Your task to perform on an android device: turn notification dots off Image 0: 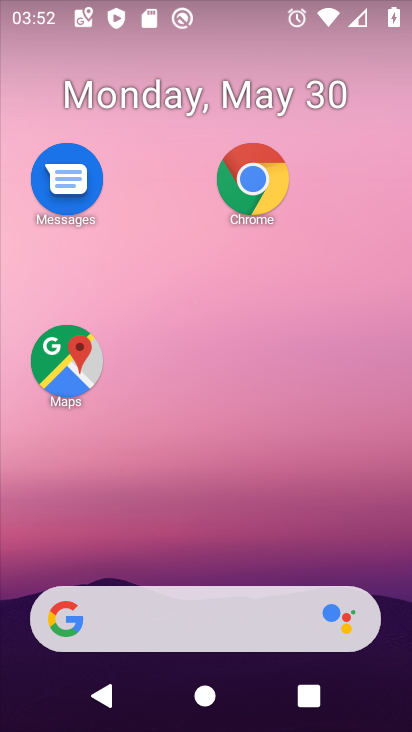
Step 0: drag from (218, 494) to (235, 143)
Your task to perform on an android device: turn notification dots off Image 1: 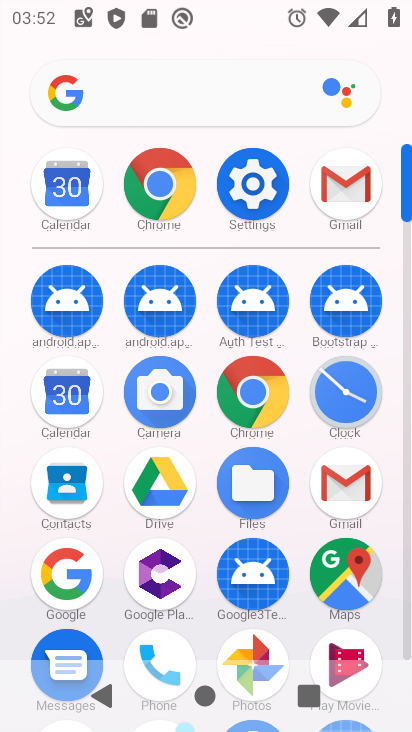
Step 1: click (248, 188)
Your task to perform on an android device: turn notification dots off Image 2: 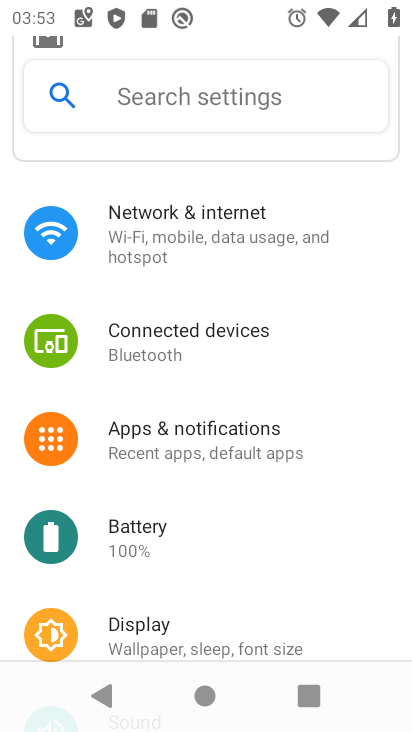
Step 2: drag from (176, 566) to (200, 268)
Your task to perform on an android device: turn notification dots off Image 3: 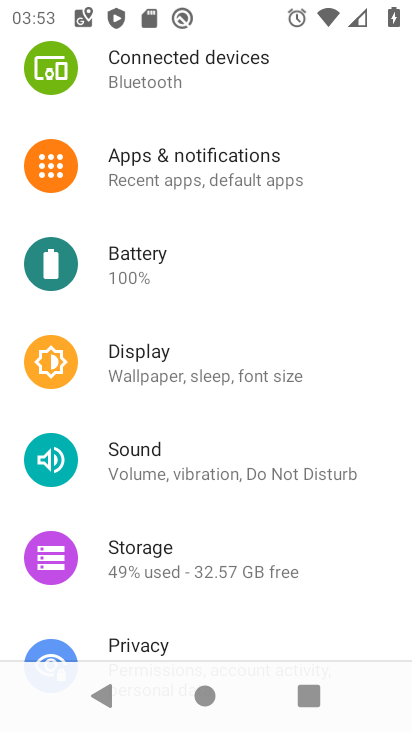
Step 3: drag from (166, 590) to (172, 185)
Your task to perform on an android device: turn notification dots off Image 4: 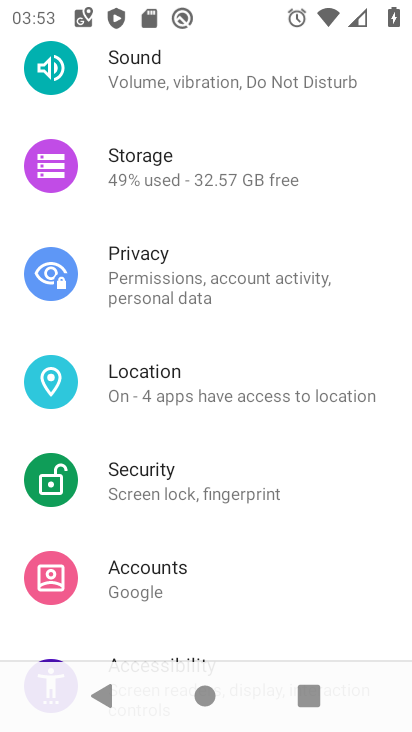
Step 4: drag from (166, 572) to (243, 325)
Your task to perform on an android device: turn notification dots off Image 5: 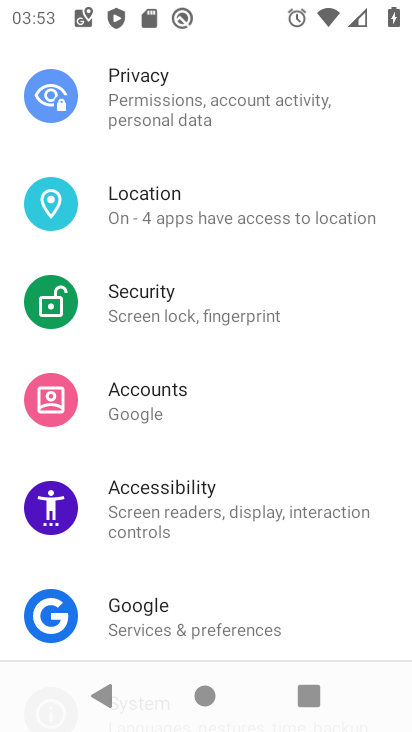
Step 5: drag from (220, 565) to (202, 58)
Your task to perform on an android device: turn notification dots off Image 6: 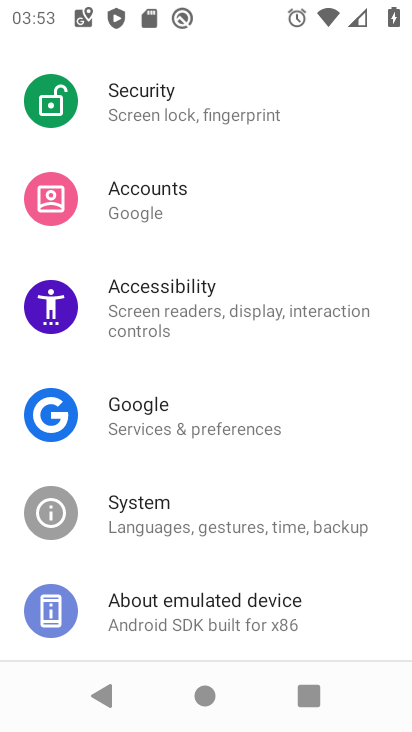
Step 6: drag from (210, 443) to (210, 507)
Your task to perform on an android device: turn notification dots off Image 7: 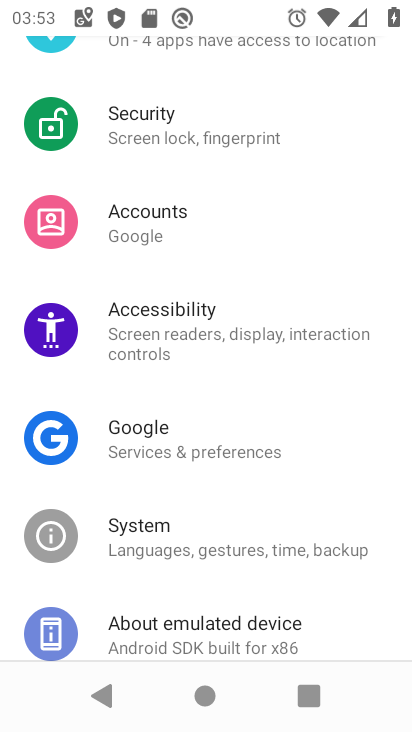
Step 7: drag from (289, 199) to (188, 542)
Your task to perform on an android device: turn notification dots off Image 8: 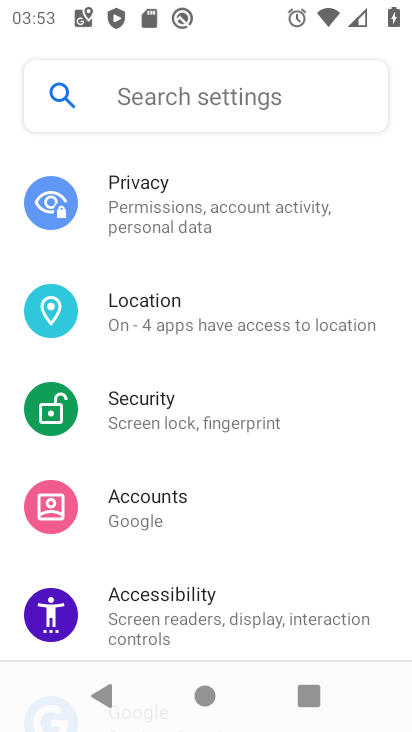
Step 8: drag from (232, 299) to (199, 545)
Your task to perform on an android device: turn notification dots off Image 9: 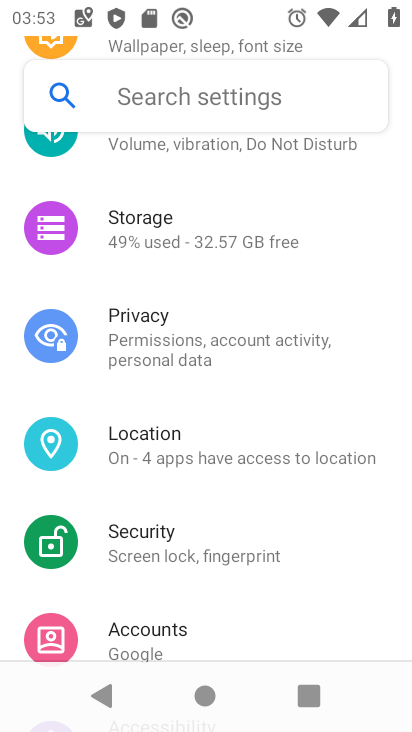
Step 9: drag from (283, 354) to (233, 588)
Your task to perform on an android device: turn notification dots off Image 10: 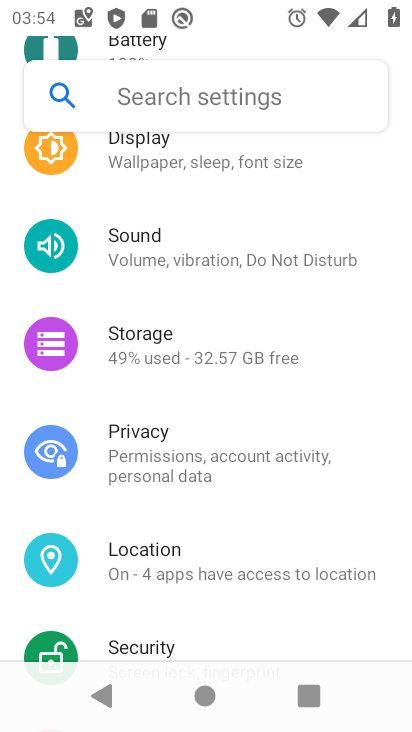
Step 10: drag from (193, 222) to (132, 600)
Your task to perform on an android device: turn notification dots off Image 11: 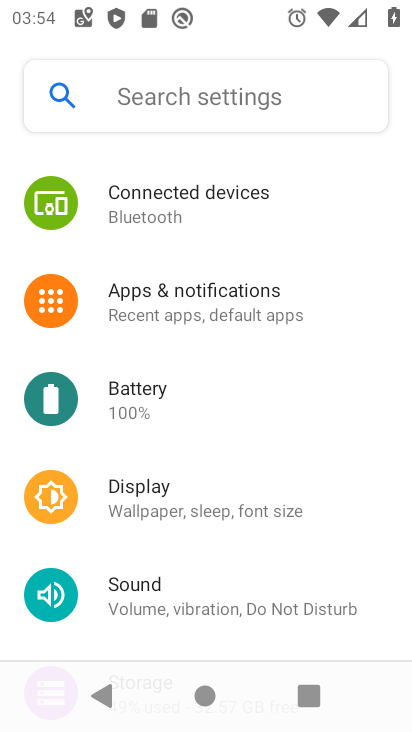
Step 11: drag from (219, 284) to (180, 633)
Your task to perform on an android device: turn notification dots off Image 12: 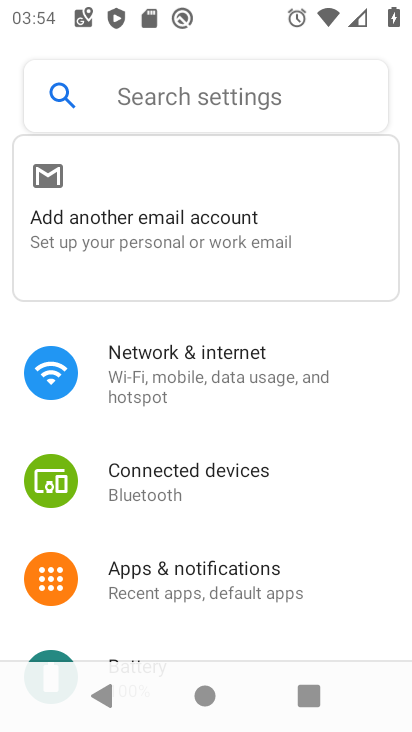
Step 12: drag from (246, 236) to (223, 520)
Your task to perform on an android device: turn notification dots off Image 13: 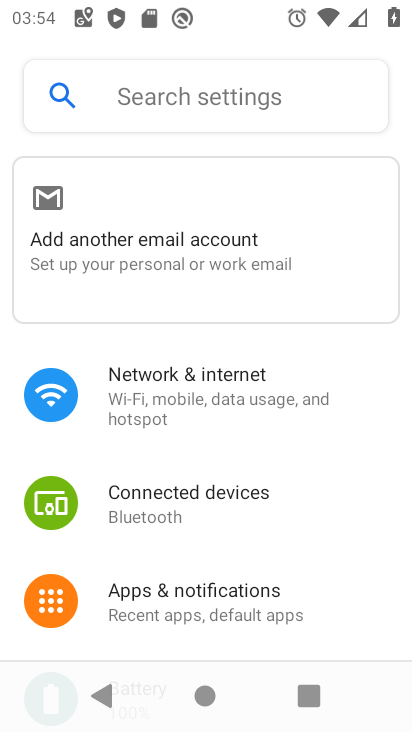
Step 13: click (170, 598)
Your task to perform on an android device: turn notification dots off Image 14: 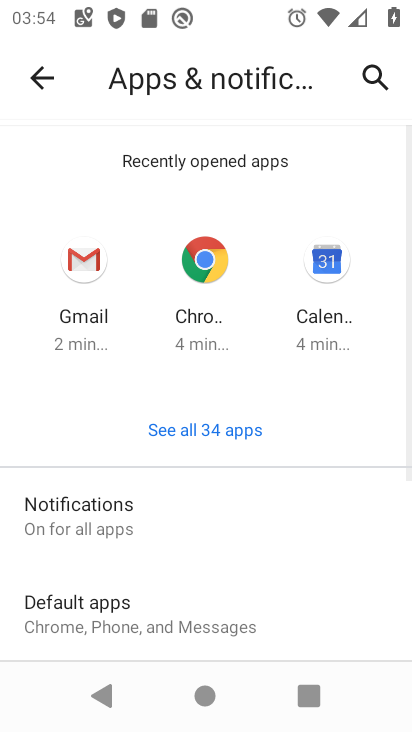
Step 14: drag from (135, 622) to (151, 263)
Your task to perform on an android device: turn notification dots off Image 15: 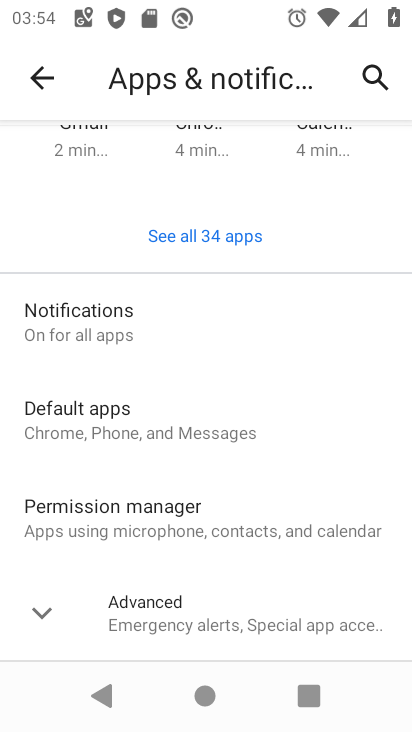
Step 15: drag from (105, 623) to (177, 246)
Your task to perform on an android device: turn notification dots off Image 16: 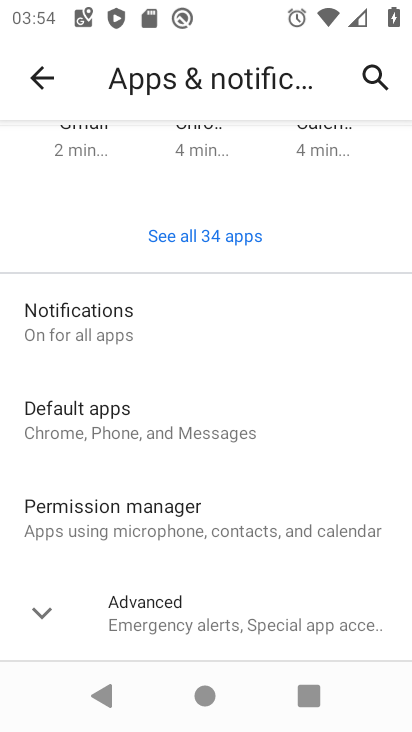
Step 16: click (128, 623)
Your task to perform on an android device: turn notification dots off Image 17: 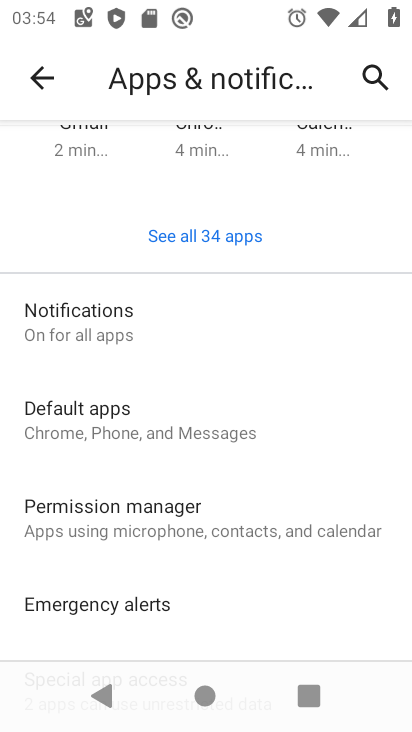
Step 17: click (110, 328)
Your task to perform on an android device: turn notification dots off Image 18: 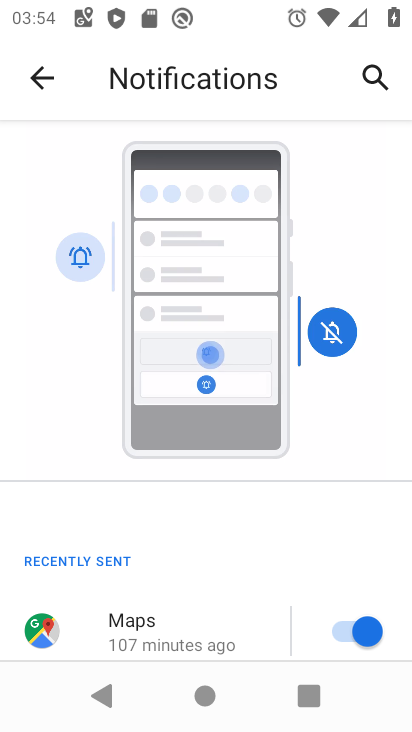
Step 18: drag from (169, 604) to (231, 184)
Your task to perform on an android device: turn notification dots off Image 19: 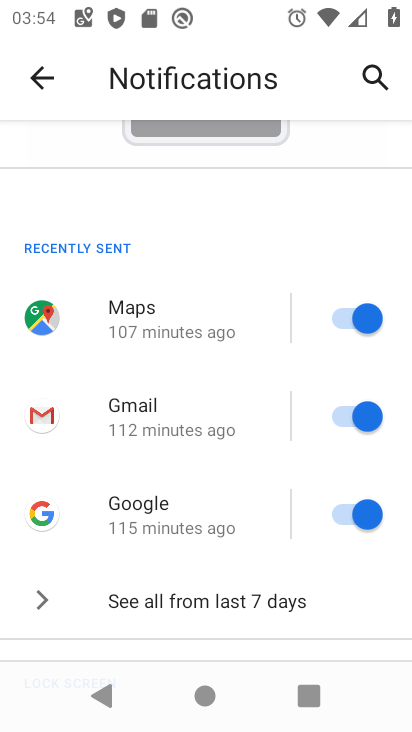
Step 19: drag from (190, 588) to (279, 66)
Your task to perform on an android device: turn notification dots off Image 20: 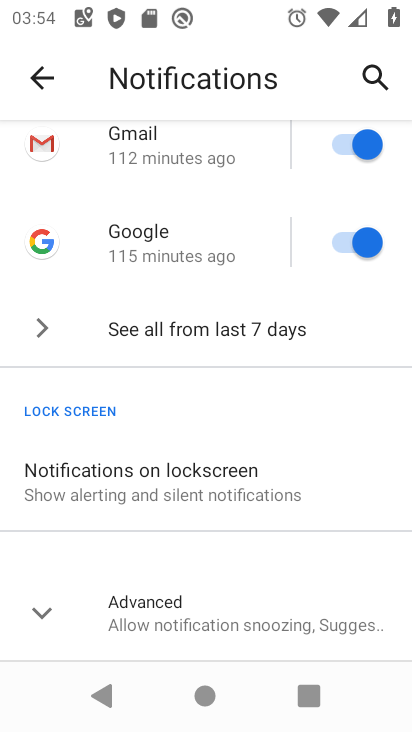
Step 20: click (142, 617)
Your task to perform on an android device: turn notification dots off Image 21: 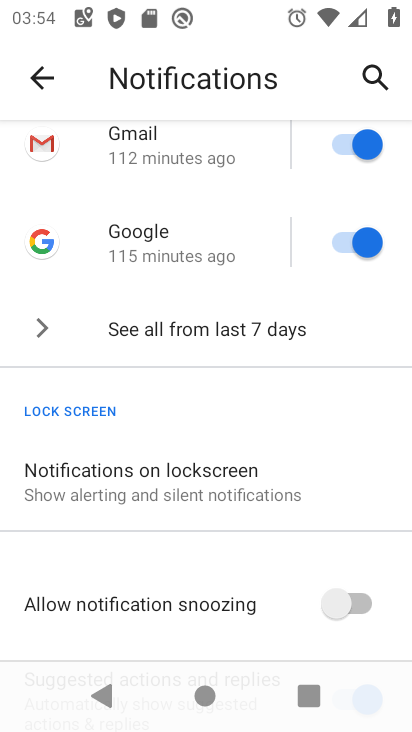
Step 21: drag from (196, 596) to (273, 134)
Your task to perform on an android device: turn notification dots off Image 22: 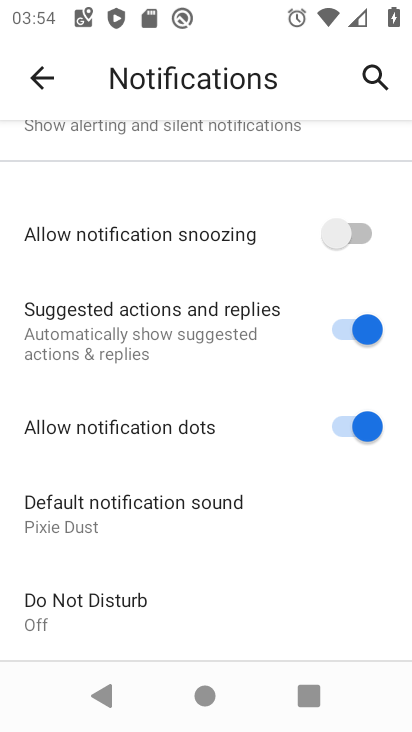
Step 22: click (346, 434)
Your task to perform on an android device: turn notification dots off Image 23: 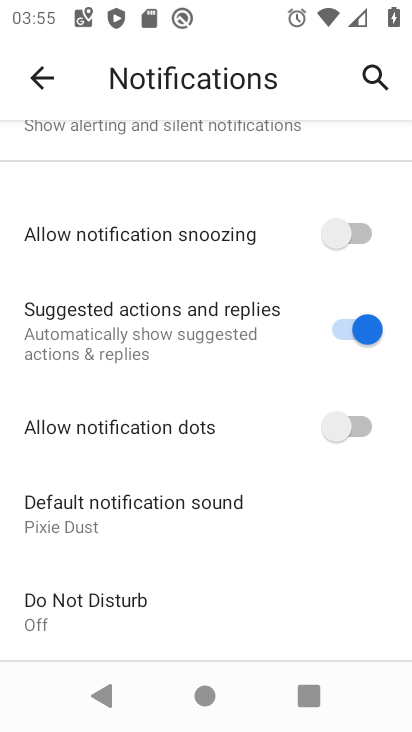
Step 23: task complete